Your task to perform on an android device: Turn off the flashlight Image 0: 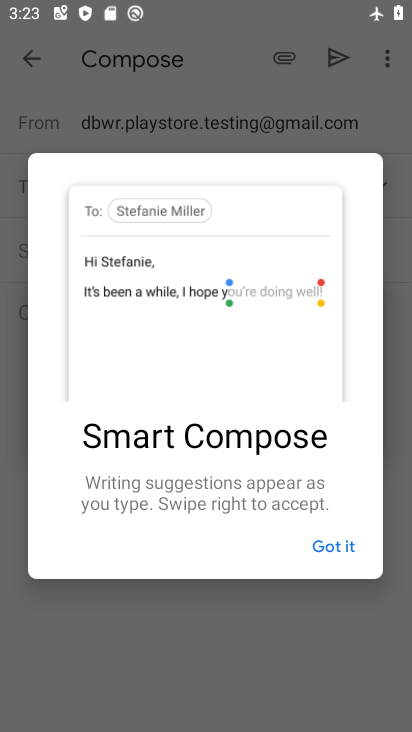
Step 0: press home button
Your task to perform on an android device: Turn off the flashlight Image 1: 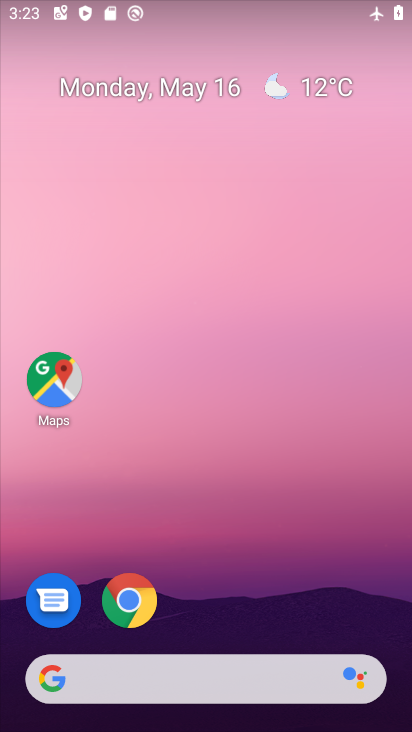
Step 1: drag from (217, 645) to (140, 12)
Your task to perform on an android device: Turn off the flashlight Image 2: 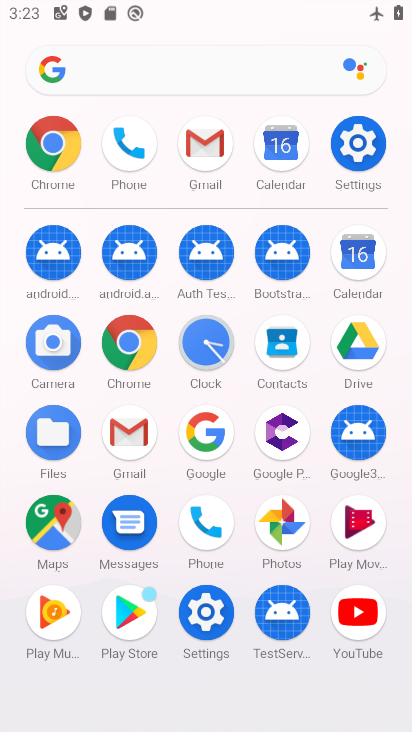
Step 2: click (373, 156)
Your task to perform on an android device: Turn off the flashlight Image 3: 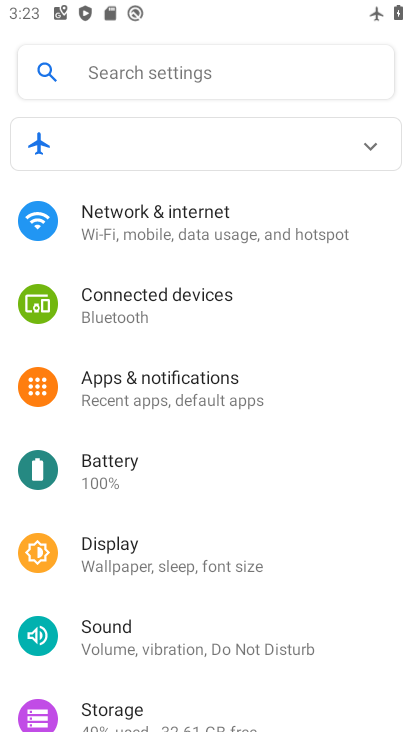
Step 3: task complete